Your task to perform on an android device: set default search engine in the chrome app Image 0: 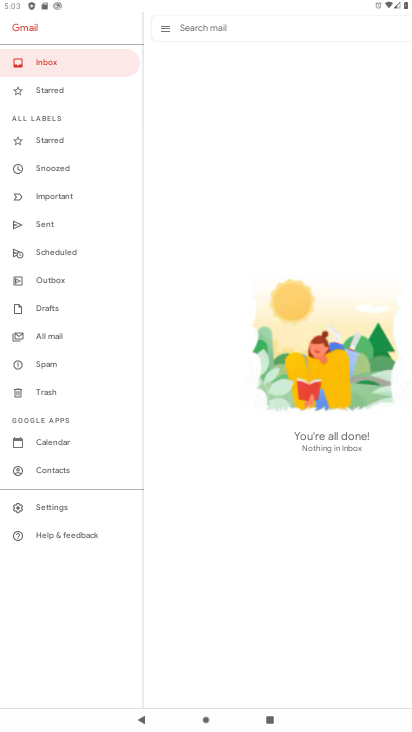
Step 0: press home button
Your task to perform on an android device: set default search engine in the chrome app Image 1: 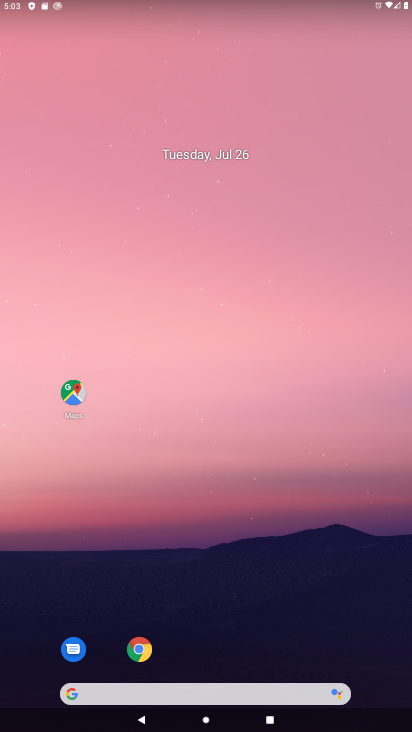
Step 1: click (136, 653)
Your task to perform on an android device: set default search engine in the chrome app Image 2: 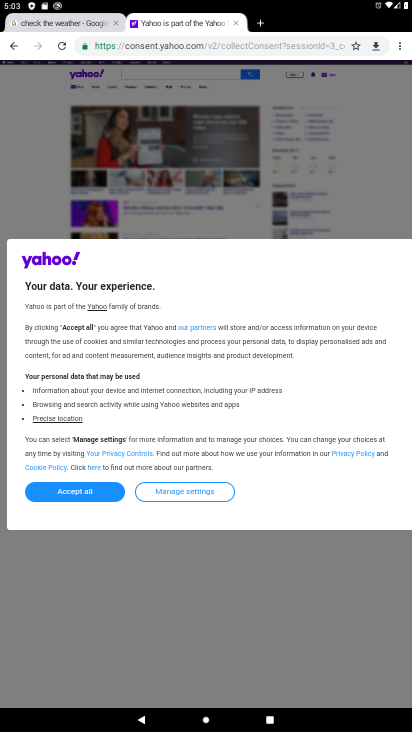
Step 2: click (400, 43)
Your task to perform on an android device: set default search engine in the chrome app Image 3: 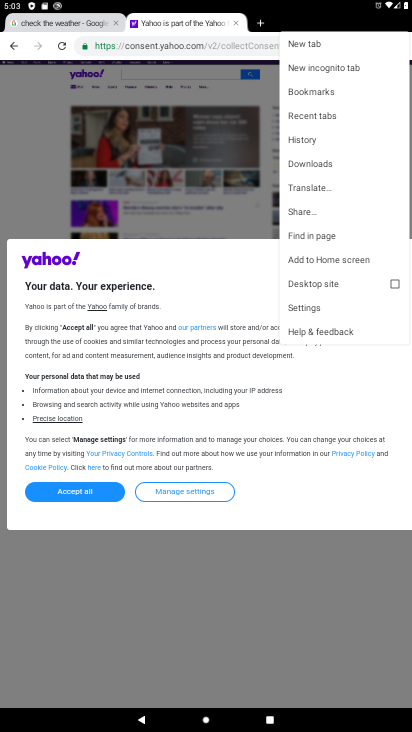
Step 3: click (349, 307)
Your task to perform on an android device: set default search engine in the chrome app Image 4: 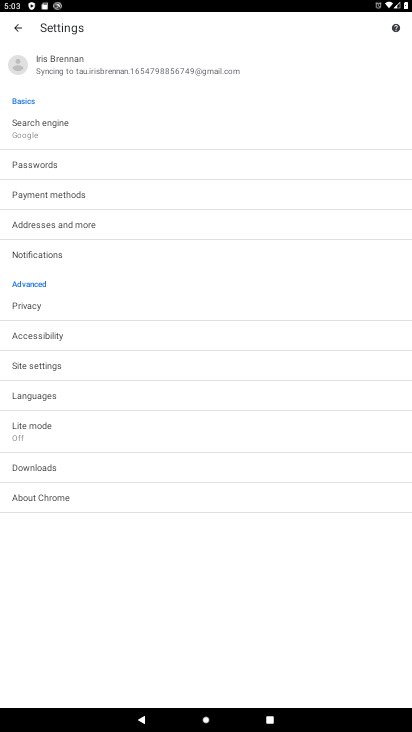
Step 4: click (120, 118)
Your task to perform on an android device: set default search engine in the chrome app Image 5: 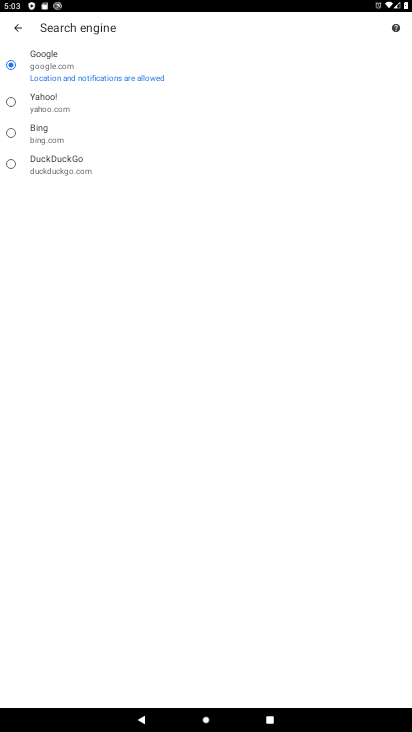
Step 5: click (157, 104)
Your task to perform on an android device: set default search engine in the chrome app Image 6: 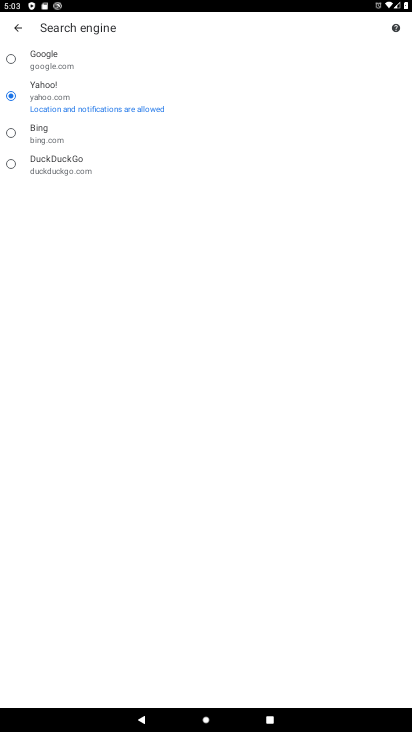
Step 6: task complete